Your task to perform on an android device: Show me productivity apps on the Play Store Image 0: 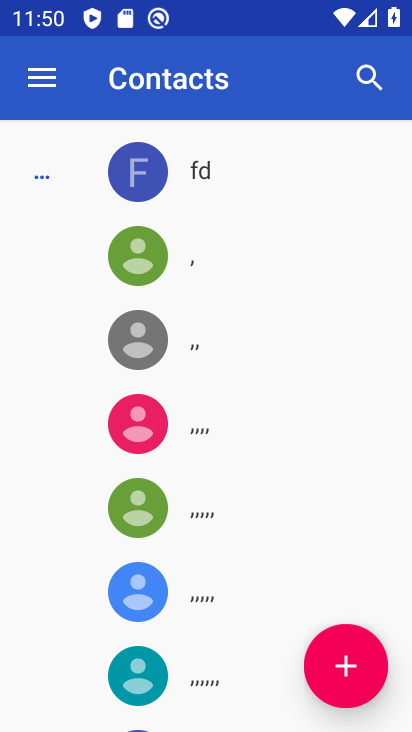
Step 0: press home button
Your task to perform on an android device: Show me productivity apps on the Play Store Image 1: 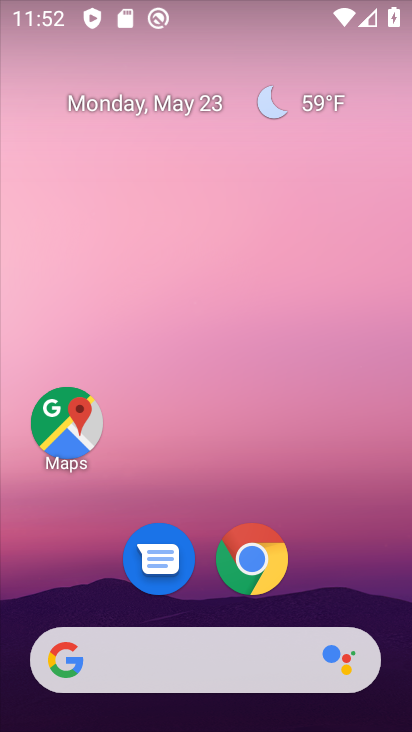
Step 1: drag from (392, 709) to (305, 278)
Your task to perform on an android device: Show me productivity apps on the Play Store Image 2: 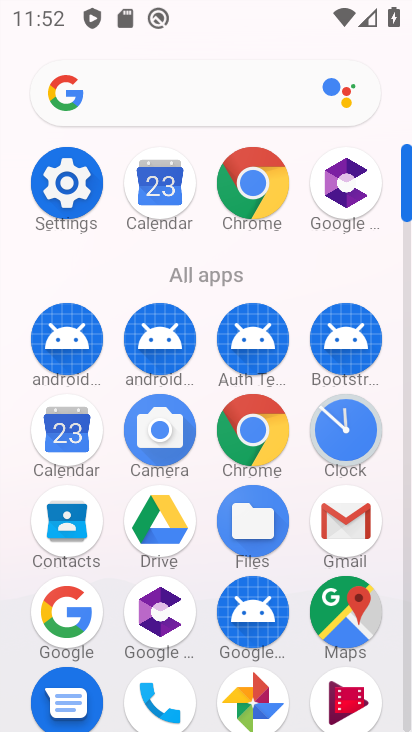
Step 2: click (401, 70)
Your task to perform on an android device: Show me productivity apps on the Play Store Image 3: 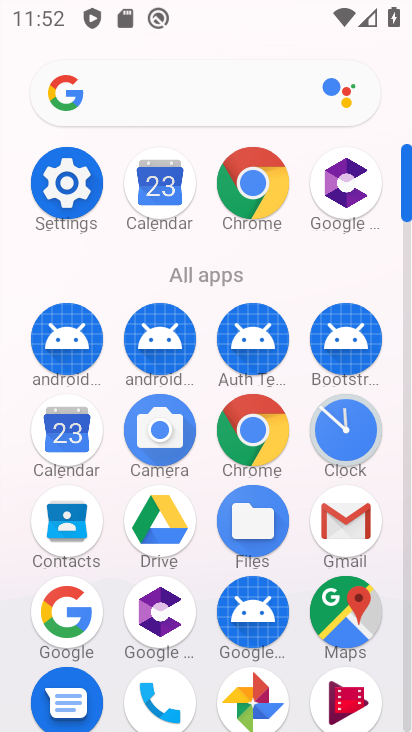
Step 3: drag from (409, 145) to (404, 93)
Your task to perform on an android device: Show me productivity apps on the Play Store Image 4: 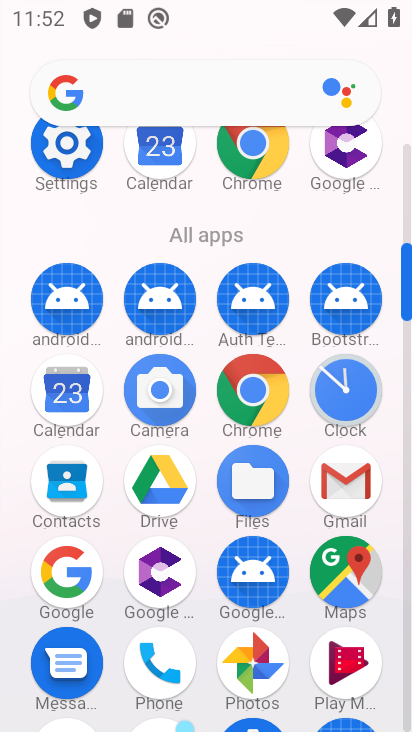
Step 4: drag from (409, 253) to (398, 154)
Your task to perform on an android device: Show me productivity apps on the Play Store Image 5: 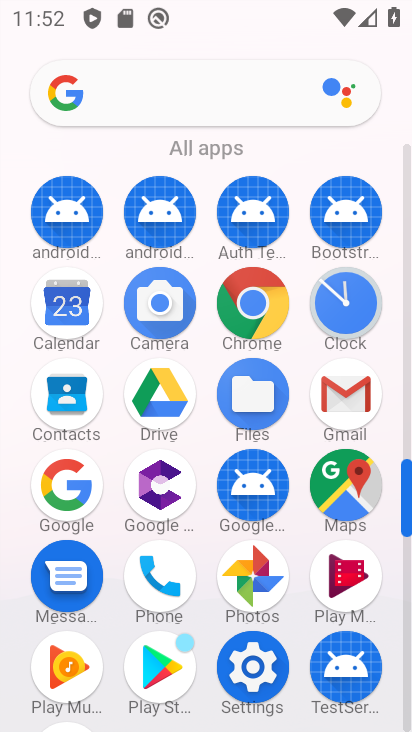
Step 5: click (161, 668)
Your task to perform on an android device: Show me productivity apps on the Play Store Image 6: 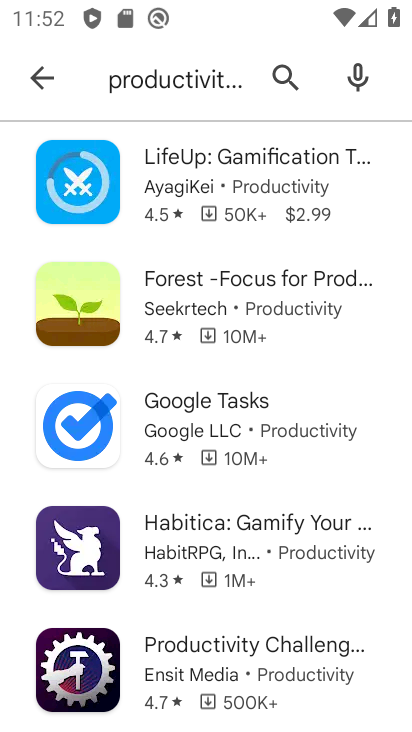
Step 6: task complete